Your task to perform on an android device: Open eBay Image 0: 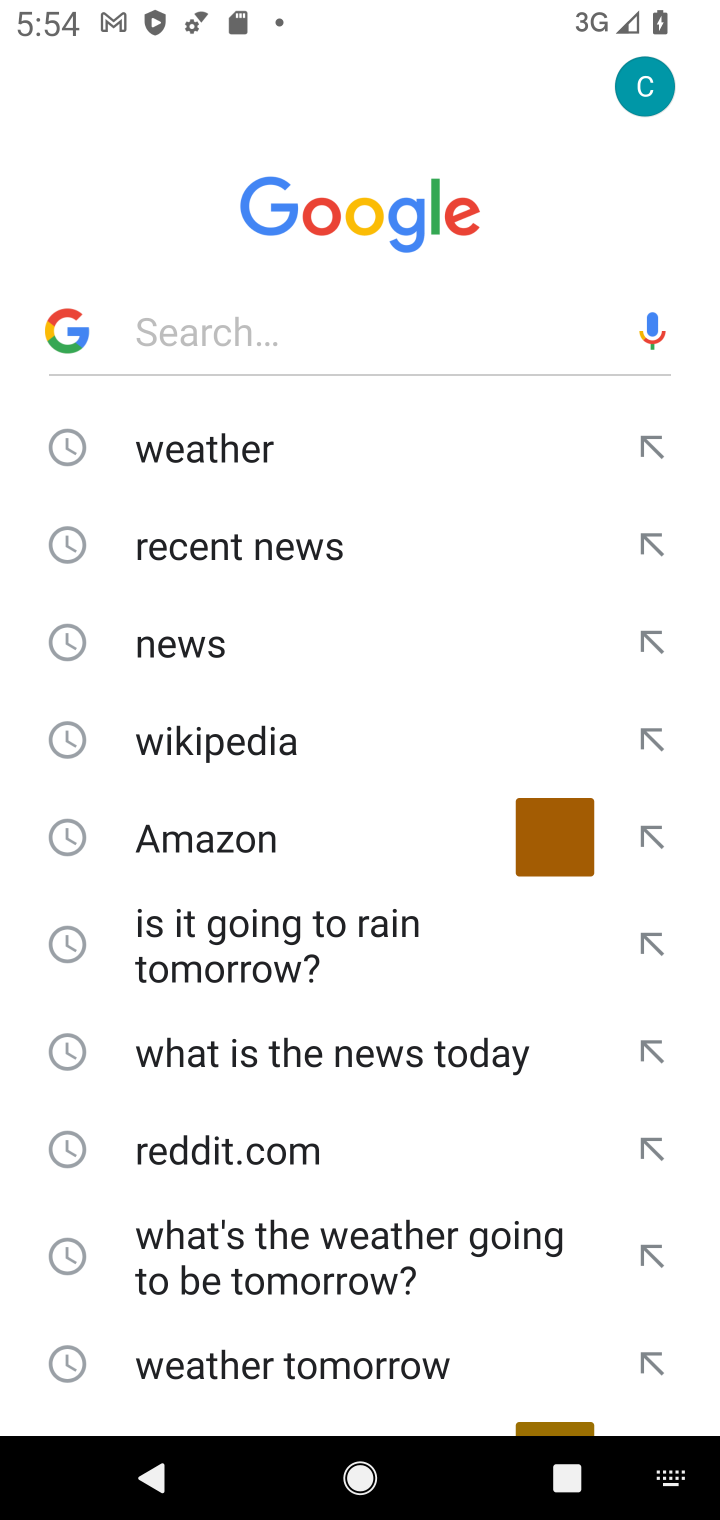
Step 0: press home button
Your task to perform on an android device: Open eBay Image 1: 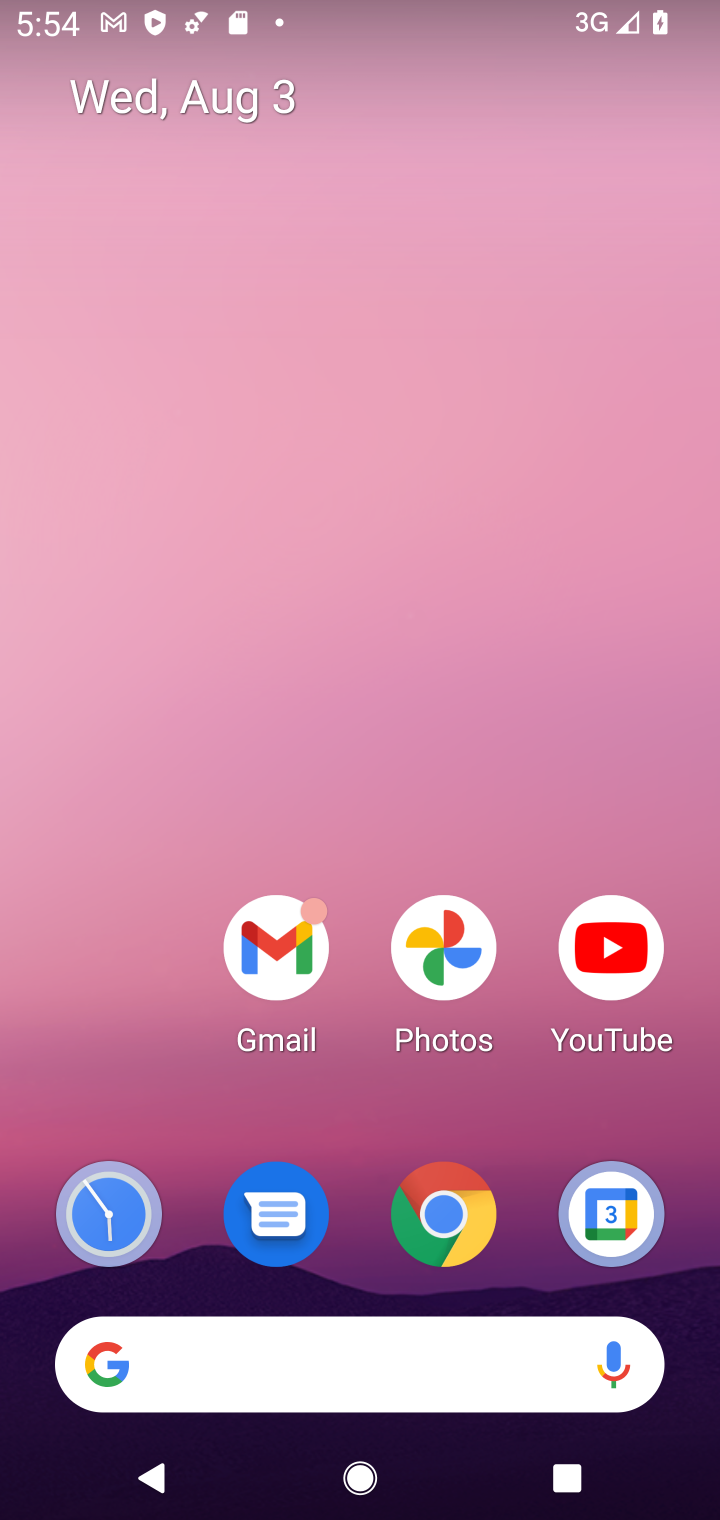
Step 1: click (434, 1202)
Your task to perform on an android device: Open eBay Image 2: 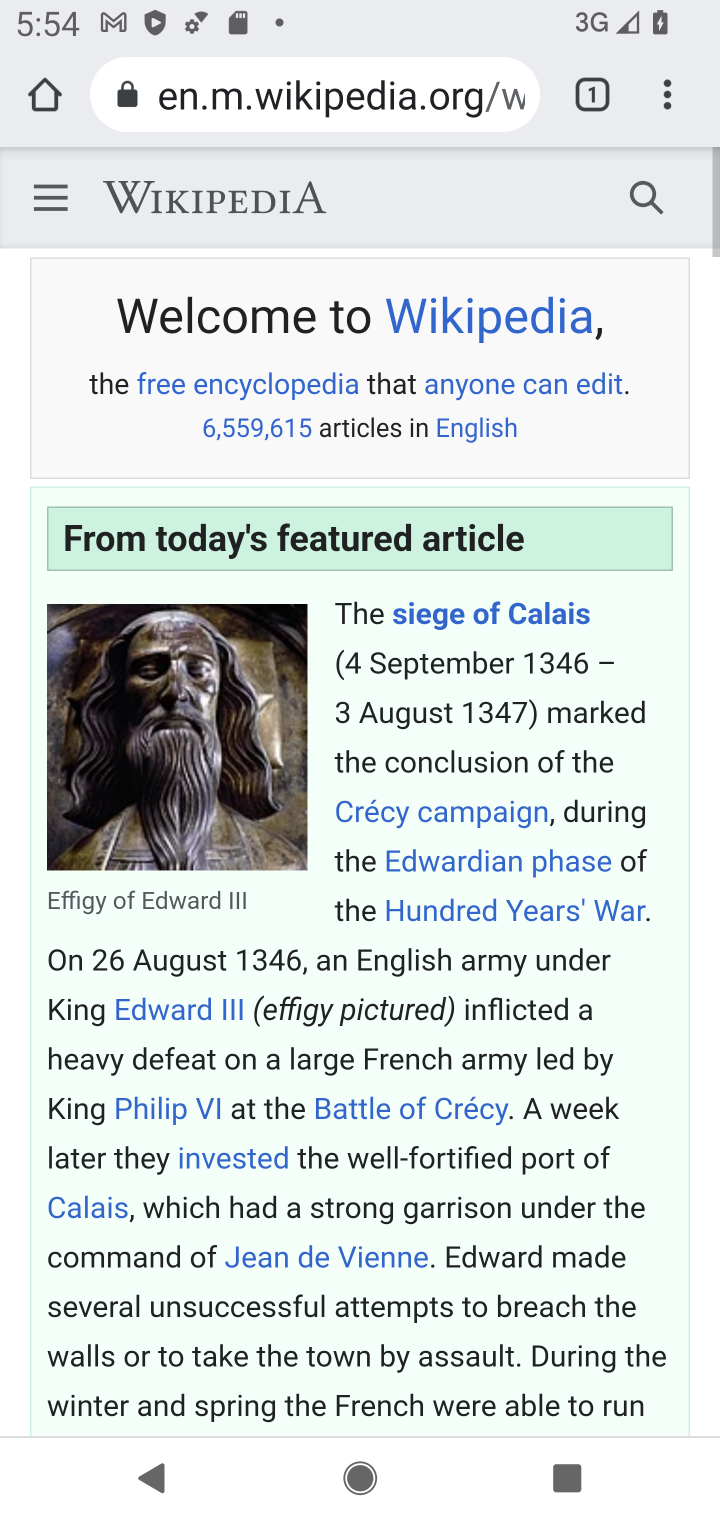
Step 2: click (366, 109)
Your task to perform on an android device: Open eBay Image 3: 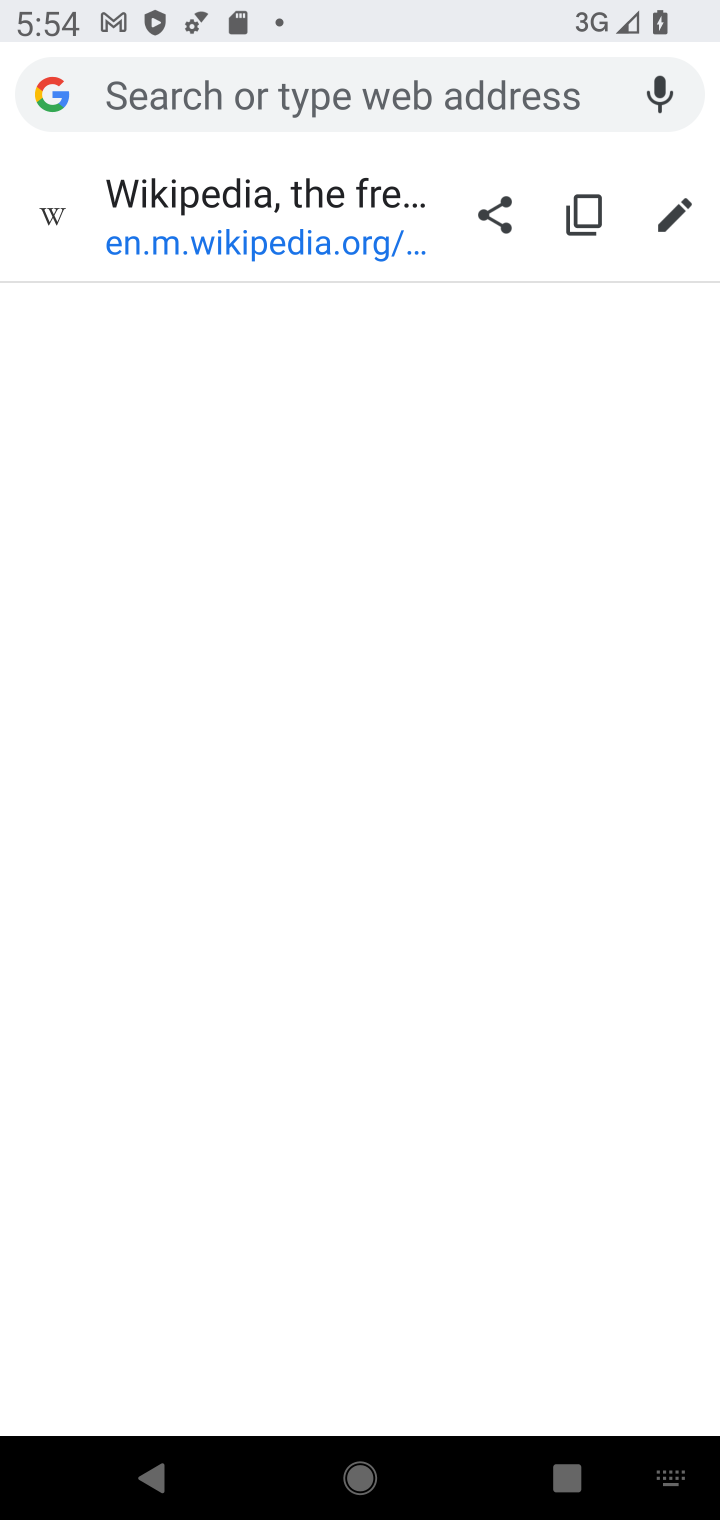
Step 3: type "ebay"
Your task to perform on an android device: Open eBay Image 4: 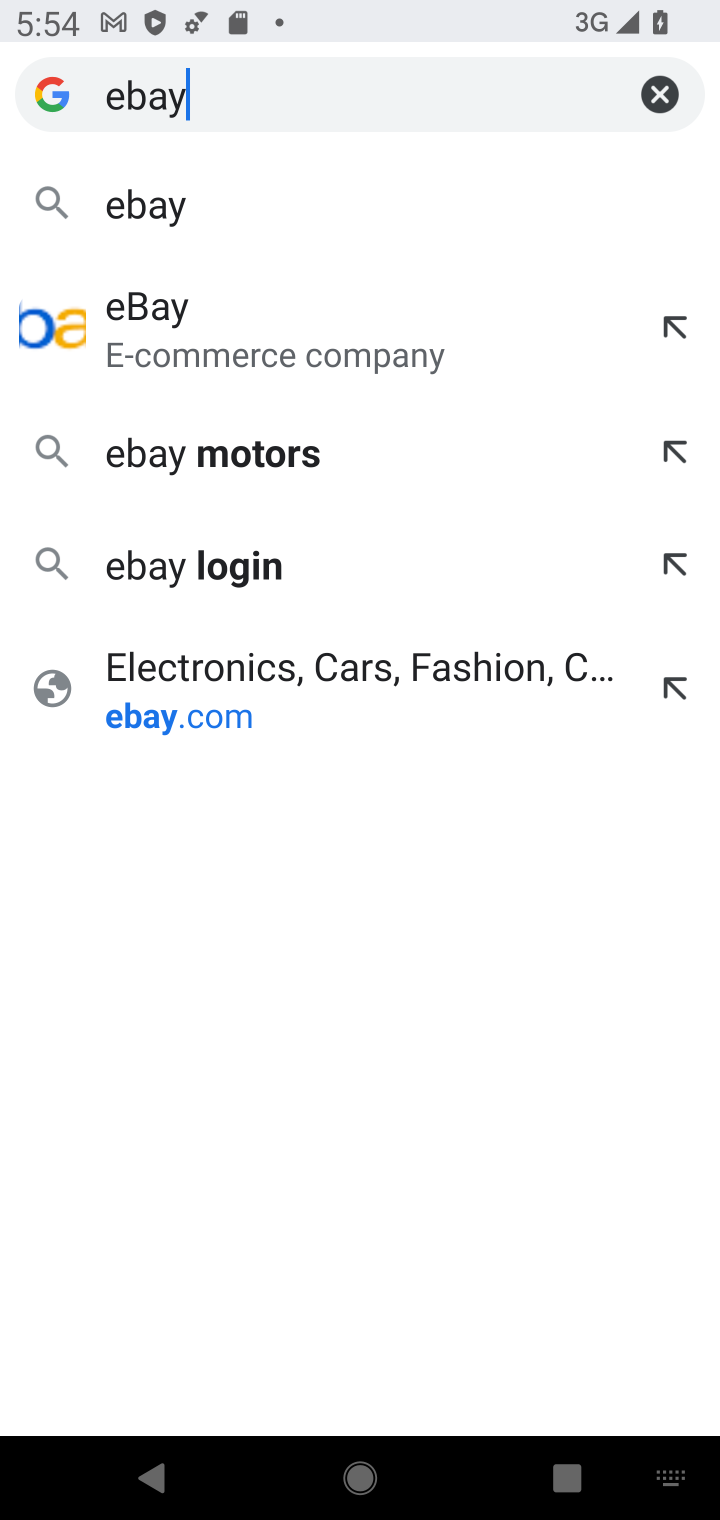
Step 4: click (123, 223)
Your task to perform on an android device: Open eBay Image 5: 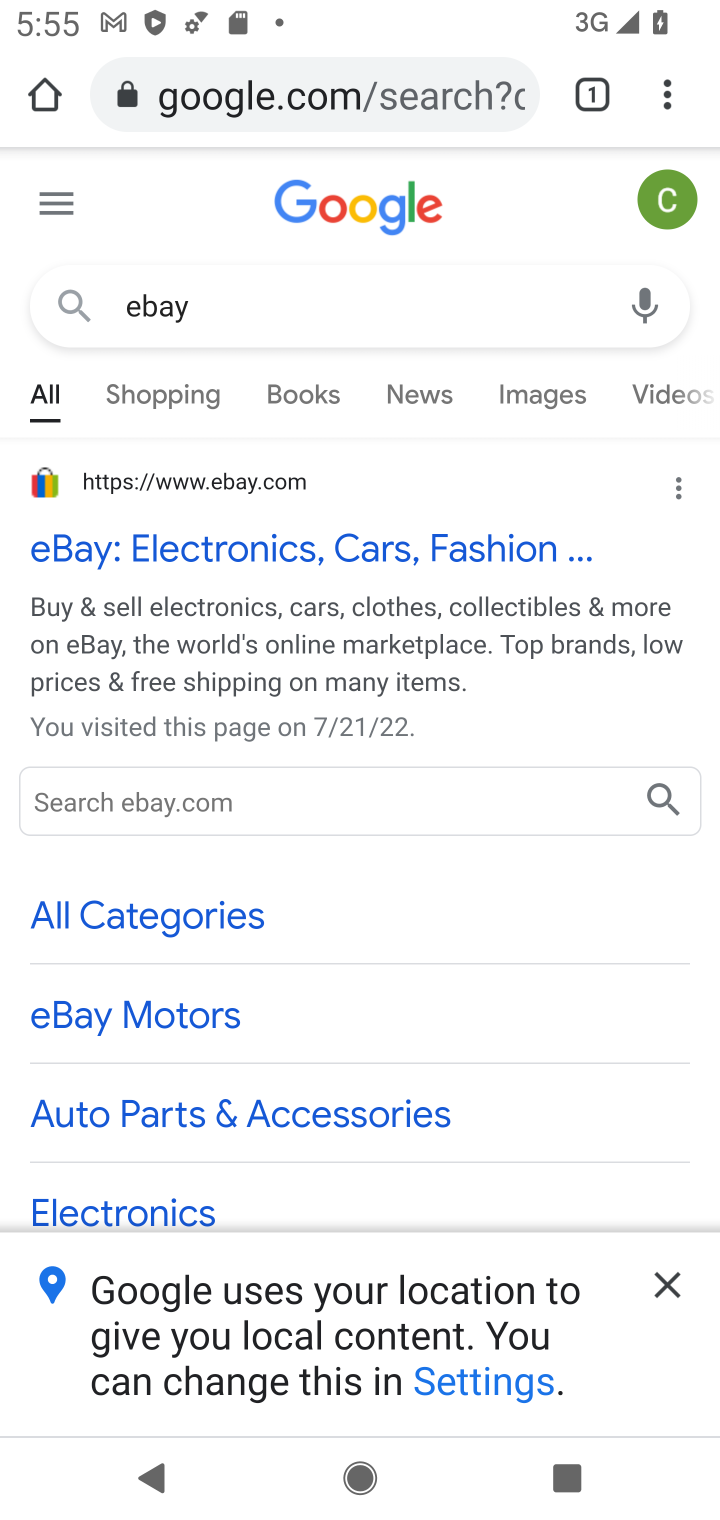
Step 5: click (186, 551)
Your task to perform on an android device: Open eBay Image 6: 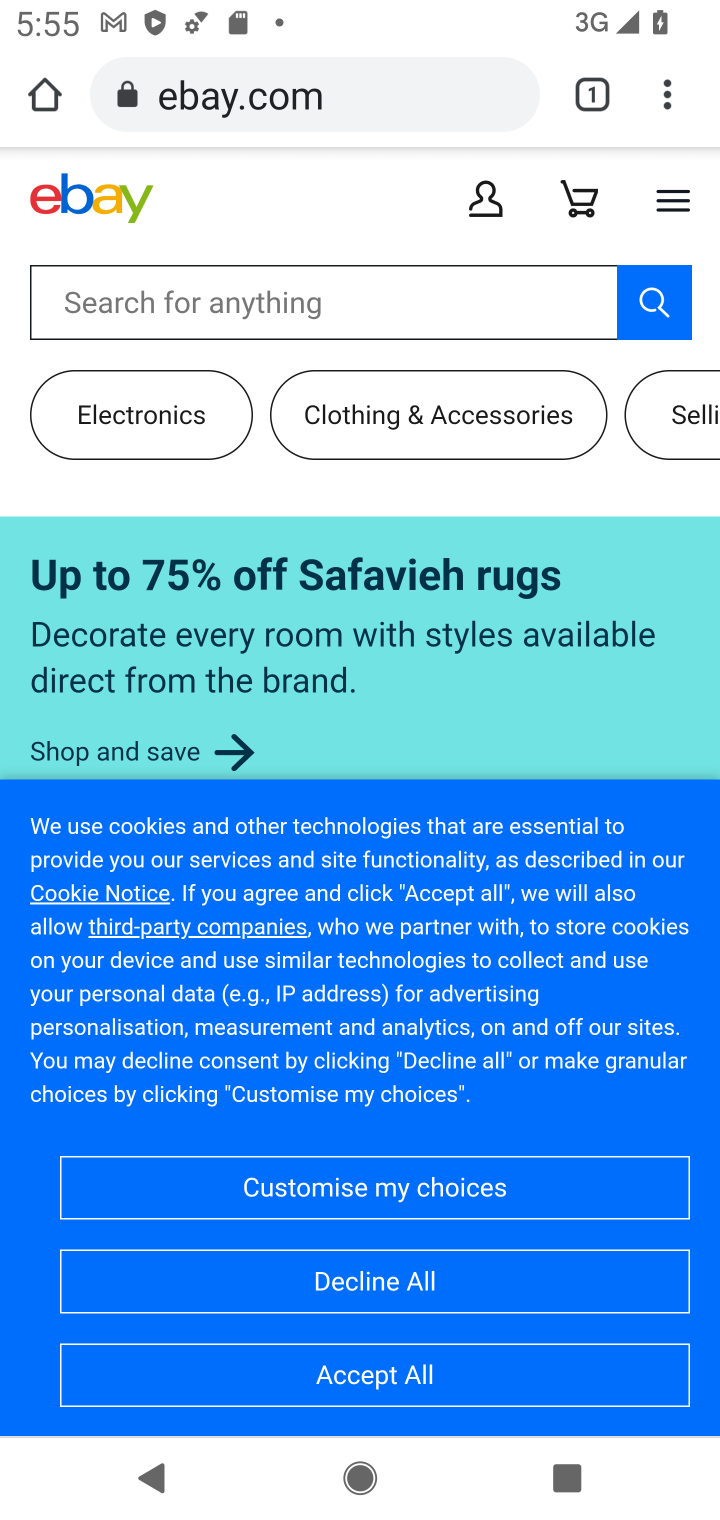
Step 6: task complete